Your task to perform on an android device: move an email to a new category in the gmail app Image 0: 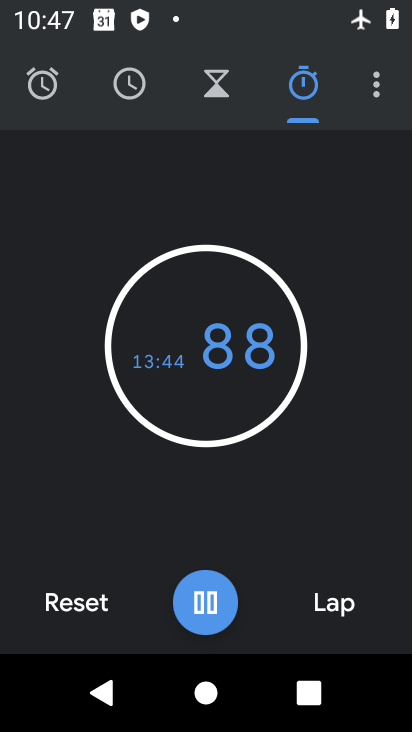
Step 0: press home button
Your task to perform on an android device: move an email to a new category in the gmail app Image 1: 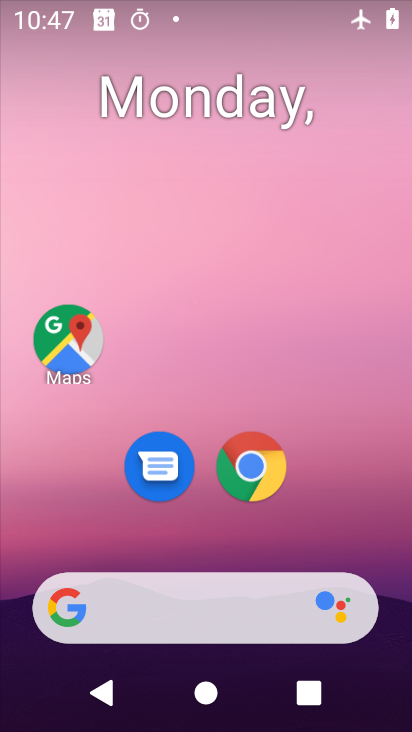
Step 1: drag from (327, 457) to (296, 41)
Your task to perform on an android device: move an email to a new category in the gmail app Image 2: 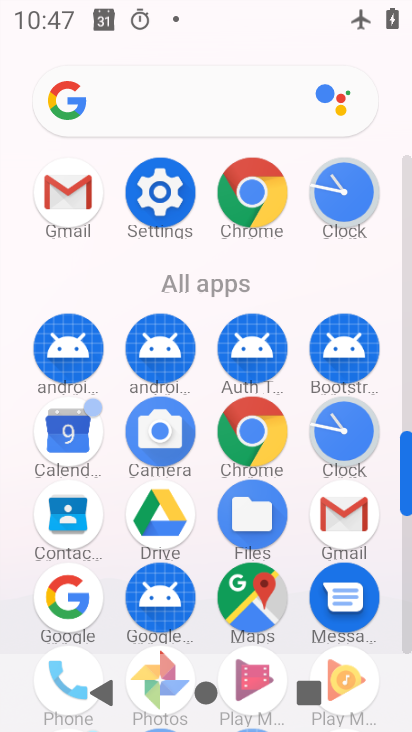
Step 2: click (351, 514)
Your task to perform on an android device: move an email to a new category in the gmail app Image 3: 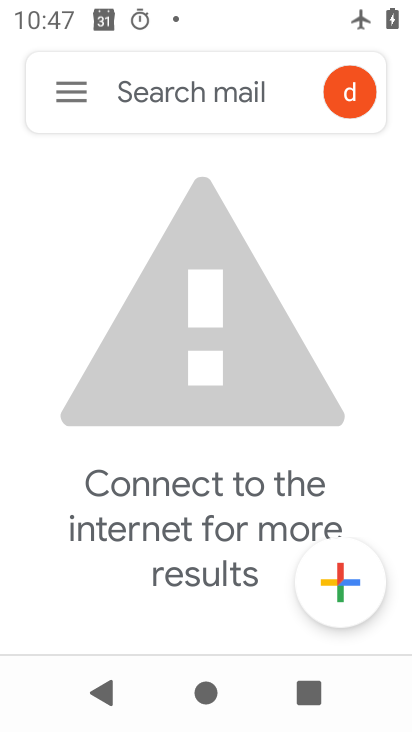
Step 3: click (67, 94)
Your task to perform on an android device: move an email to a new category in the gmail app Image 4: 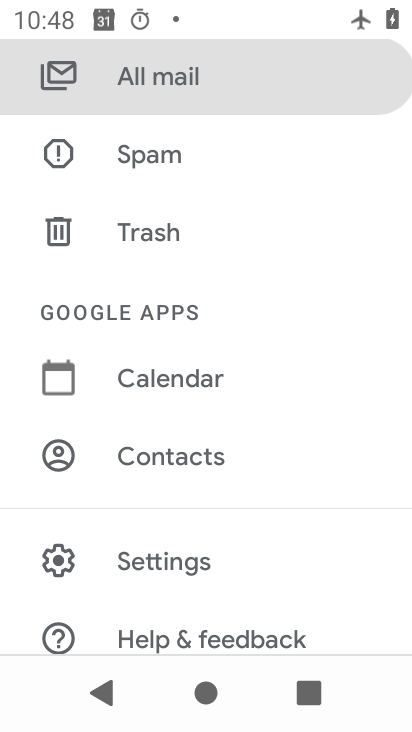
Step 4: click (223, 92)
Your task to perform on an android device: move an email to a new category in the gmail app Image 5: 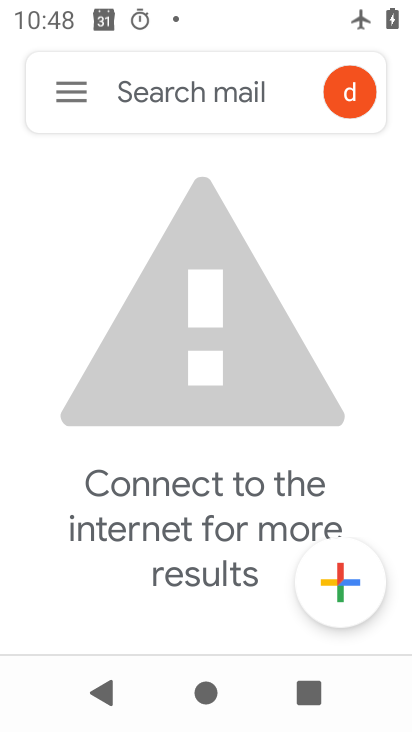
Step 5: task complete